Your task to perform on an android device: manage bookmarks in the chrome app Image 0: 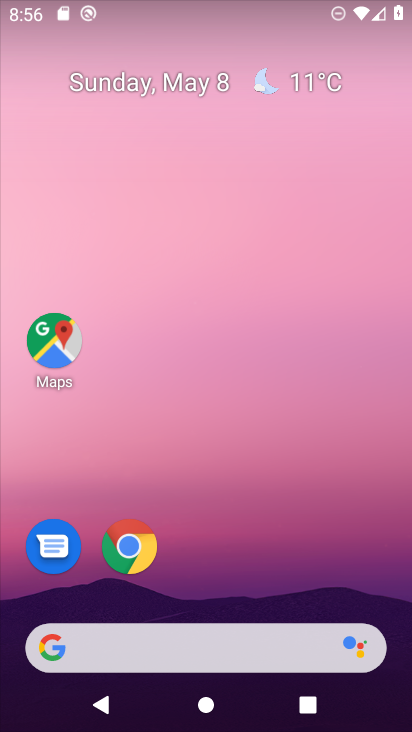
Step 0: click (131, 550)
Your task to perform on an android device: manage bookmarks in the chrome app Image 1: 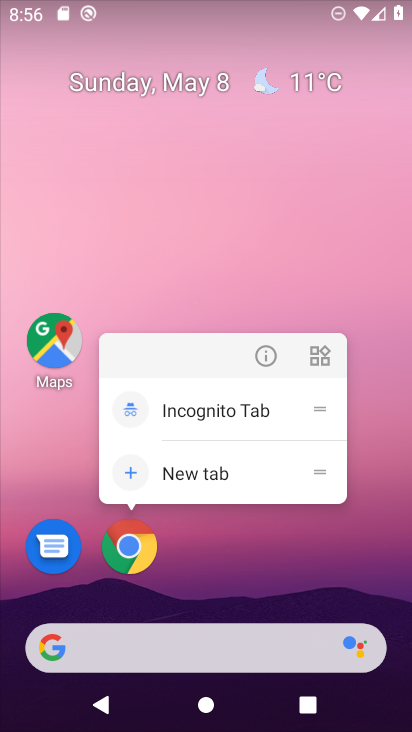
Step 1: click (128, 549)
Your task to perform on an android device: manage bookmarks in the chrome app Image 2: 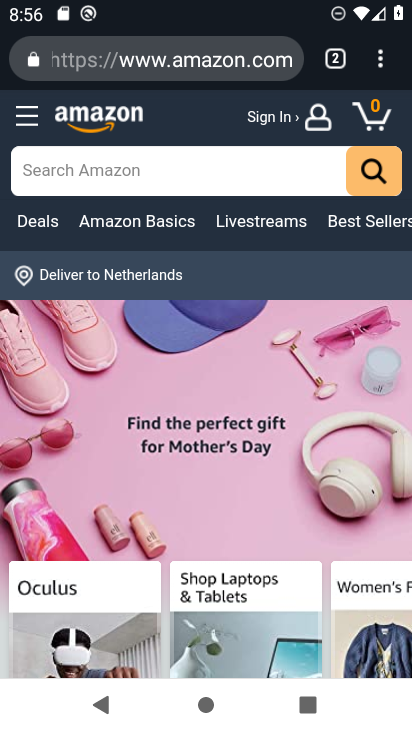
Step 2: click (382, 56)
Your task to perform on an android device: manage bookmarks in the chrome app Image 3: 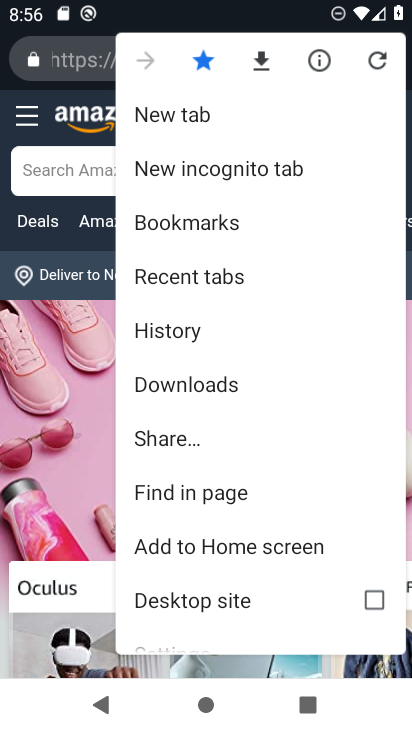
Step 3: click (240, 220)
Your task to perform on an android device: manage bookmarks in the chrome app Image 4: 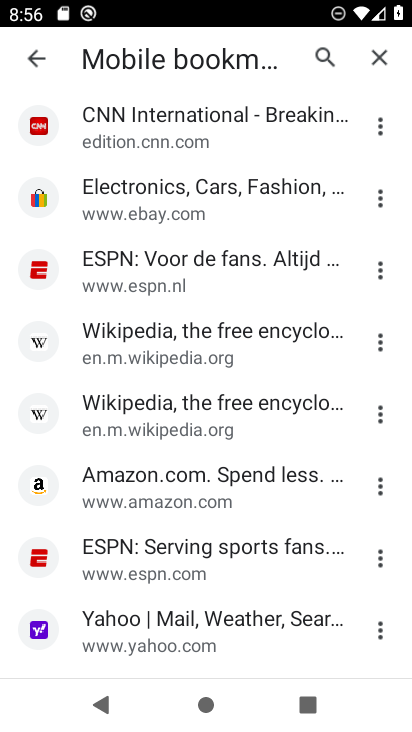
Step 4: click (379, 188)
Your task to perform on an android device: manage bookmarks in the chrome app Image 5: 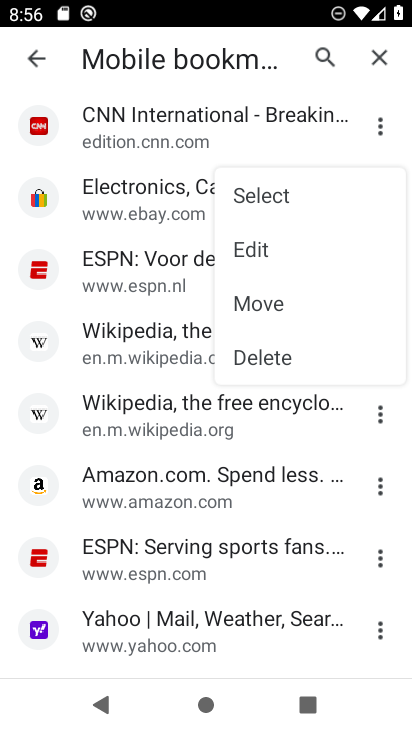
Step 5: click (301, 246)
Your task to perform on an android device: manage bookmarks in the chrome app Image 6: 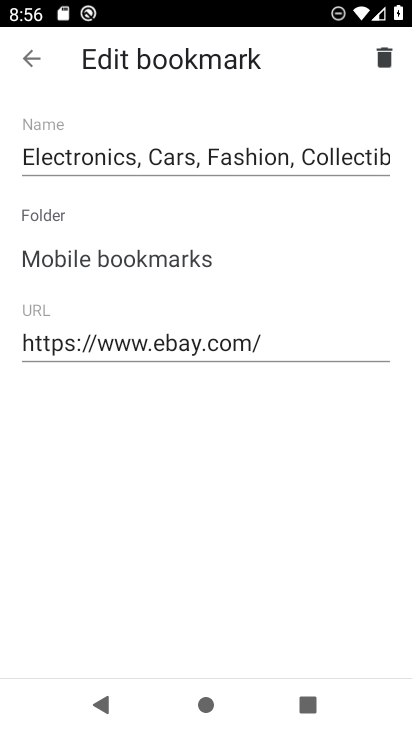
Step 6: click (29, 48)
Your task to perform on an android device: manage bookmarks in the chrome app Image 7: 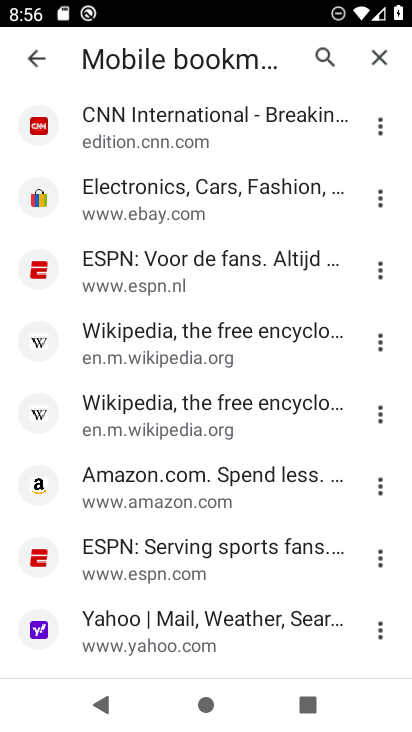
Step 7: task complete